Your task to perform on an android device: toggle sleep mode Image 0: 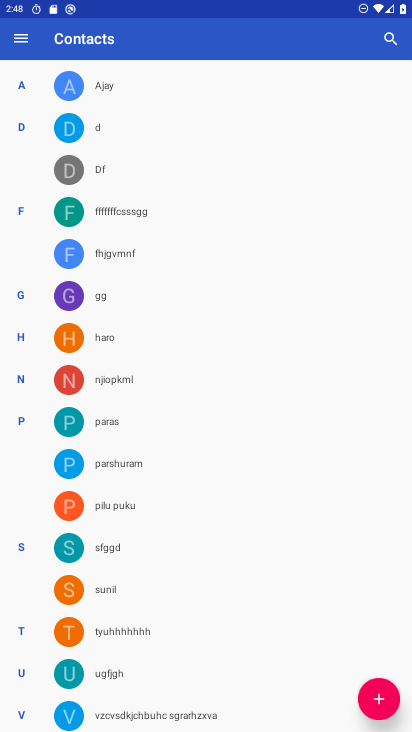
Step 0: press home button
Your task to perform on an android device: toggle sleep mode Image 1: 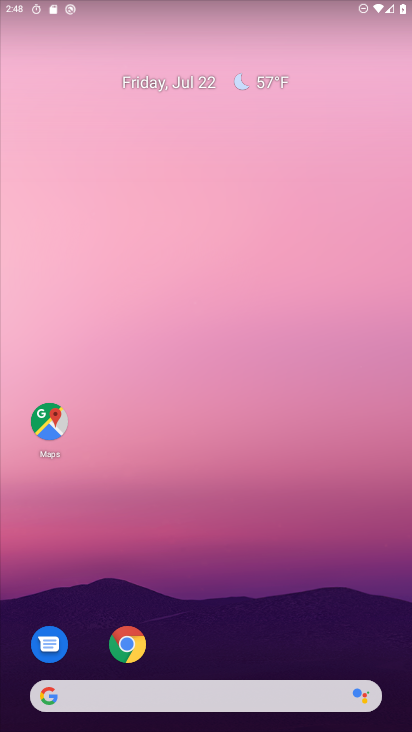
Step 1: drag from (215, 662) to (197, 164)
Your task to perform on an android device: toggle sleep mode Image 2: 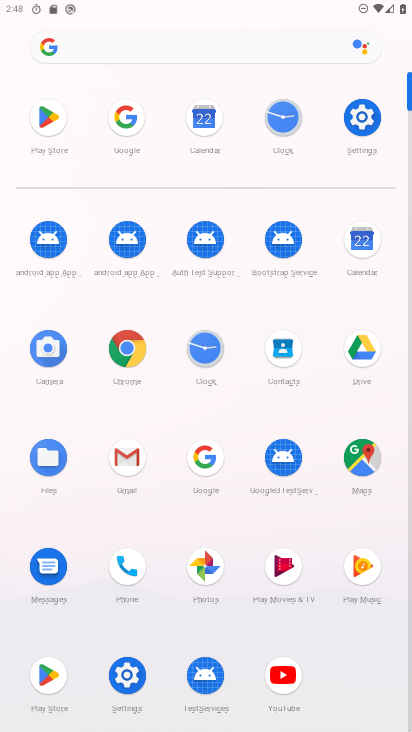
Step 2: click (342, 121)
Your task to perform on an android device: toggle sleep mode Image 3: 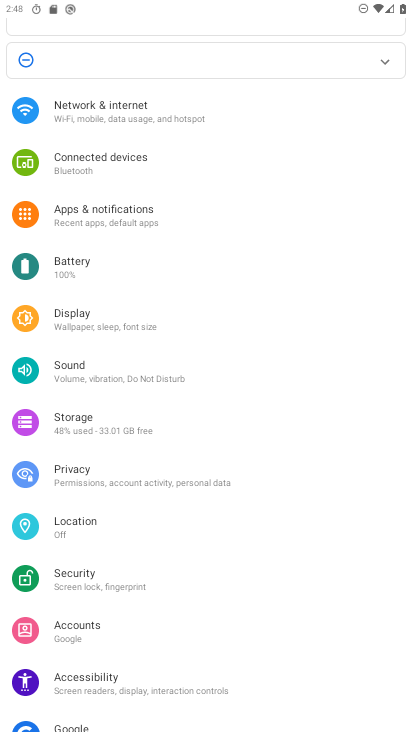
Step 3: click (118, 333)
Your task to perform on an android device: toggle sleep mode Image 4: 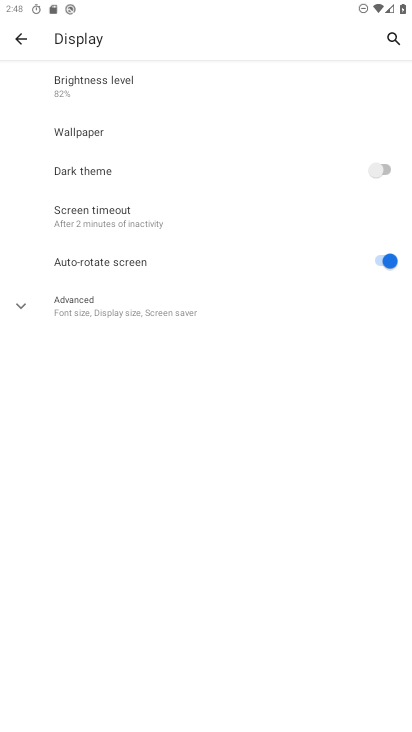
Step 4: click (140, 233)
Your task to perform on an android device: toggle sleep mode Image 5: 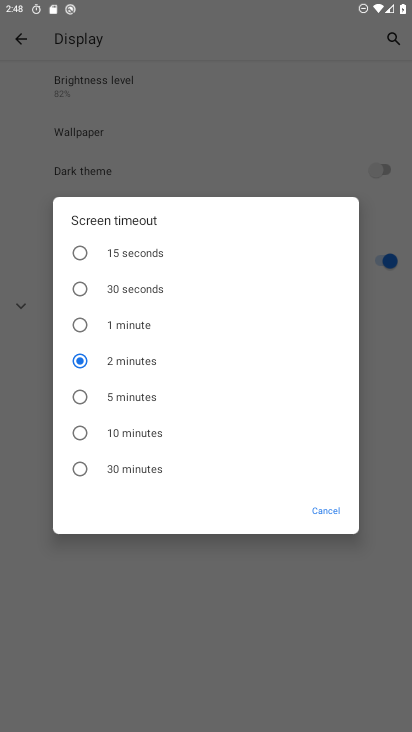
Step 5: click (116, 458)
Your task to perform on an android device: toggle sleep mode Image 6: 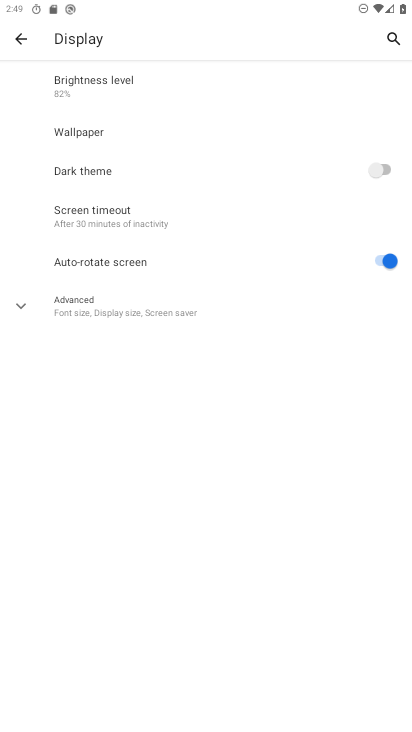
Step 6: task complete